Your task to perform on an android device: Open Wikipedia Image 0: 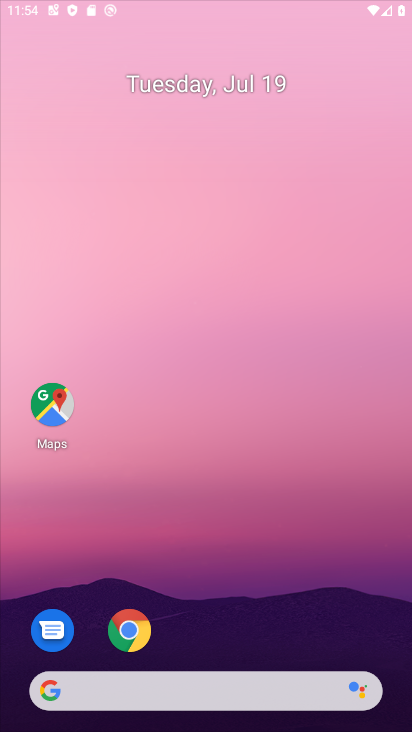
Step 0: drag from (298, 614) to (324, 75)
Your task to perform on an android device: Open Wikipedia Image 1: 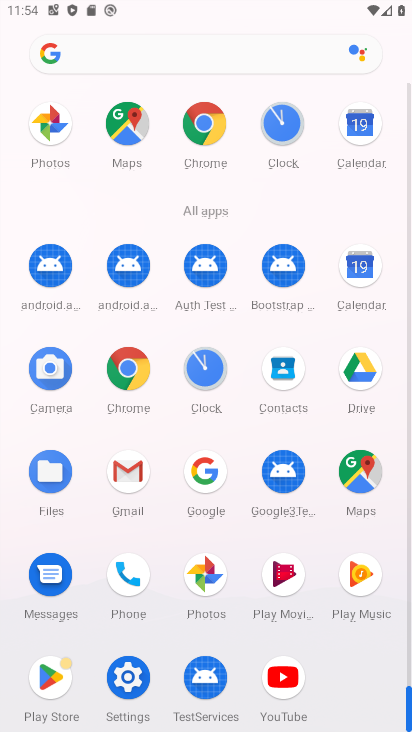
Step 1: click (207, 129)
Your task to perform on an android device: Open Wikipedia Image 2: 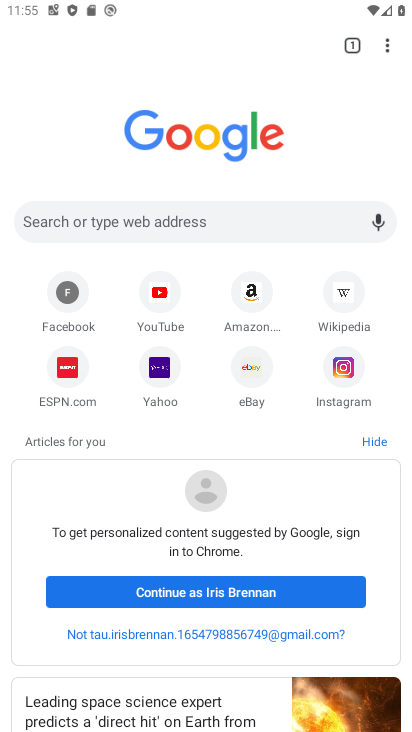
Step 2: click (341, 299)
Your task to perform on an android device: Open Wikipedia Image 3: 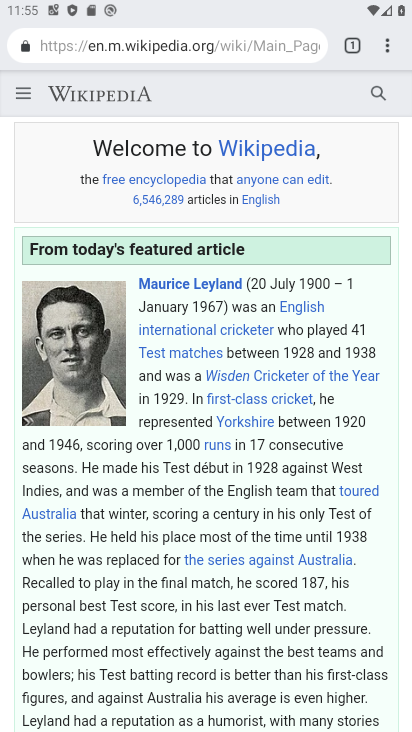
Step 3: task complete